Your task to perform on an android device: Open settings on Google Maps Image 0: 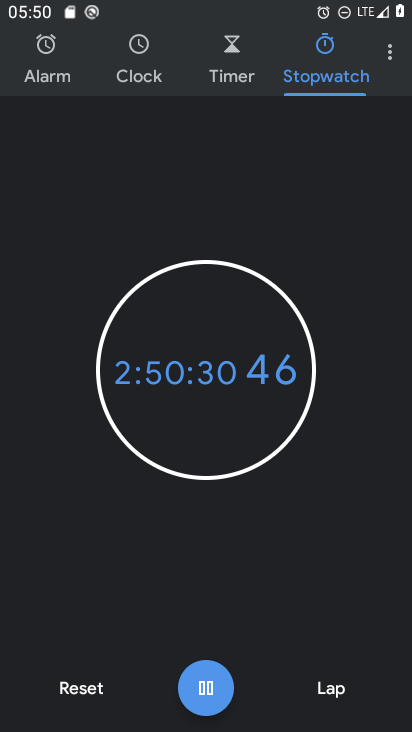
Step 0: press home button
Your task to perform on an android device: Open settings on Google Maps Image 1: 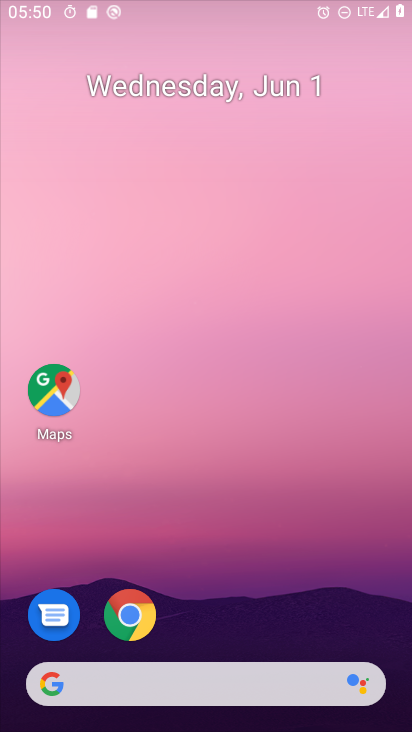
Step 1: drag from (297, 670) to (322, 30)
Your task to perform on an android device: Open settings on Google Maps Image 2: 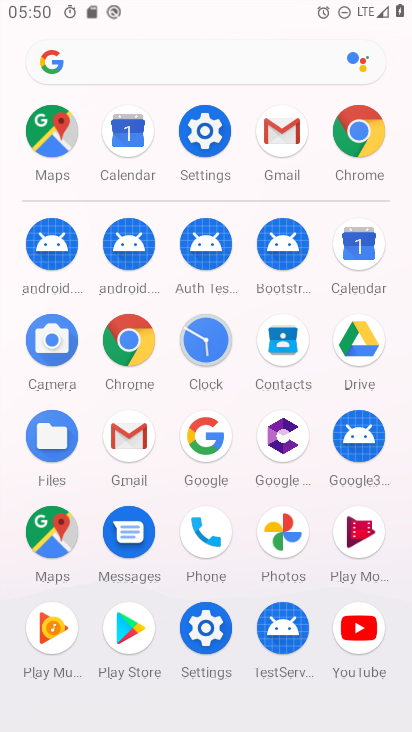
Step 2: click (52, 526)
Your task to perform on an android device: Open settings on Google Maps Image 3: 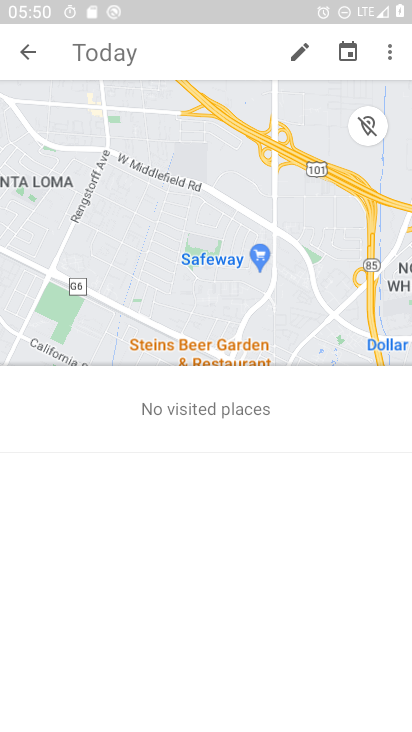
Step 3: press back button
Your task to perform on an android device: Open settings on Google Maps Image 4: 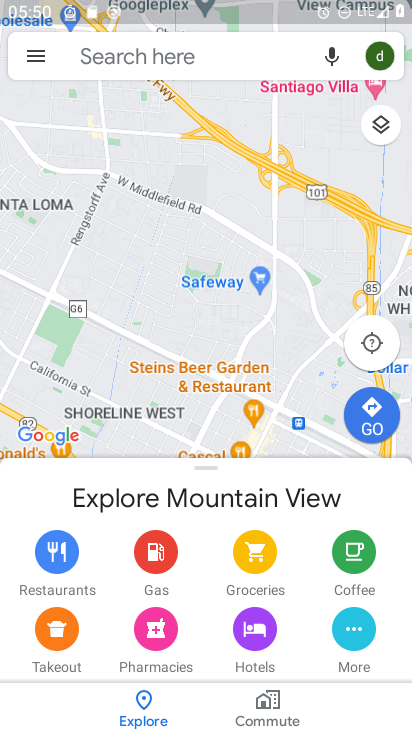
Step 4: click (26, 54)
Your task to perform on an android device: Open settings on Google Maps Image 5: 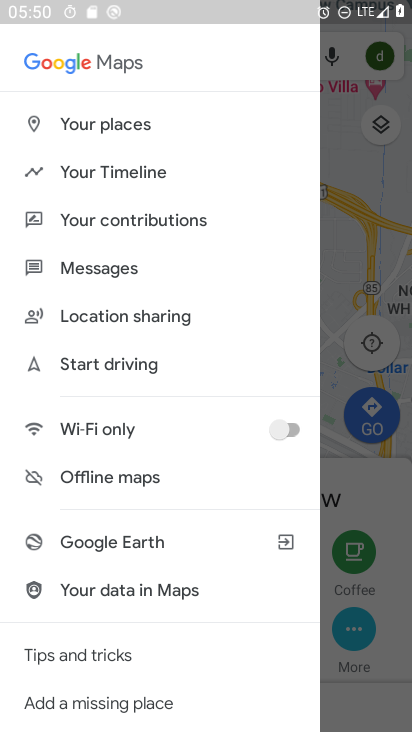
Step 5: click (140, 170)
Your task to perform on an android device: Open settings on Google Maps Image 6: 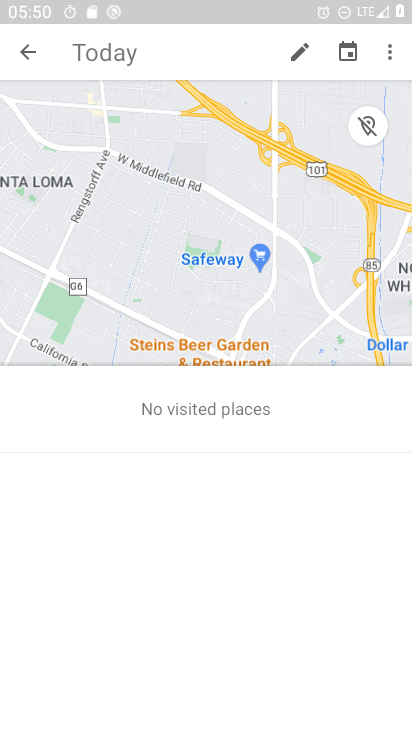
Step 6: click (393, 53)
Your task to perform on an android device: Open settings on Google Maps Image 7: 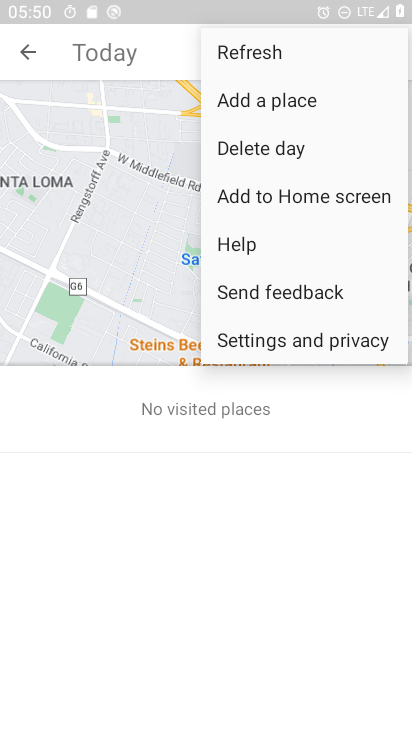
Step 7: click (262, 340)
Your task to perform on an android device: Open settings on Google Maps Image 8: 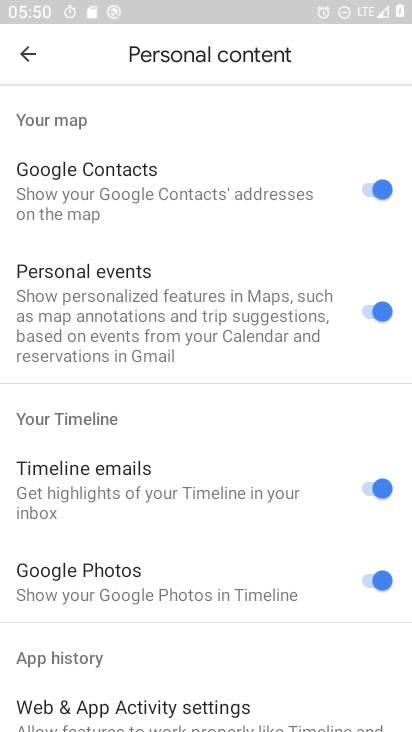
Step 8: task complete